Your task to perform on an android device: Open location settings Image 0: 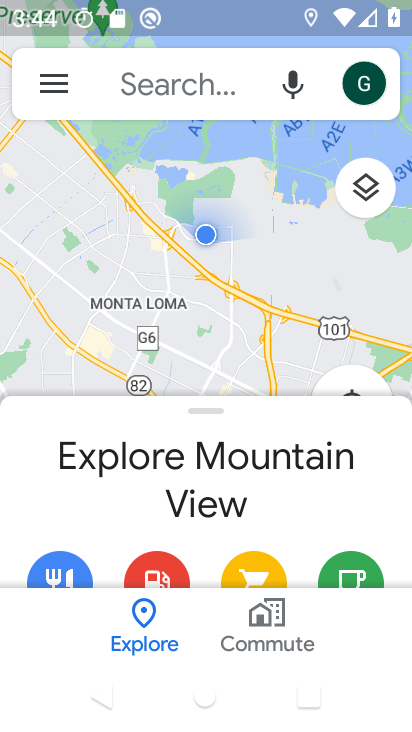
Step 0: press home button
Your task to perform on an android device: Open location settings Image 1: 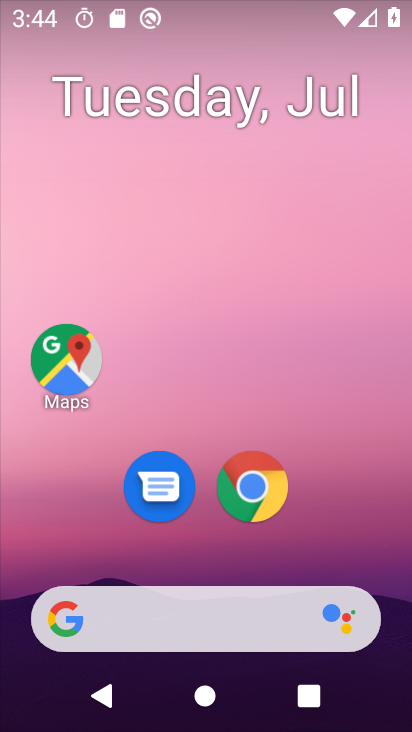
Step 1: drag from (362, 547) to (337, 43)
Your task to perform on an android device: Open location settings Image 2: 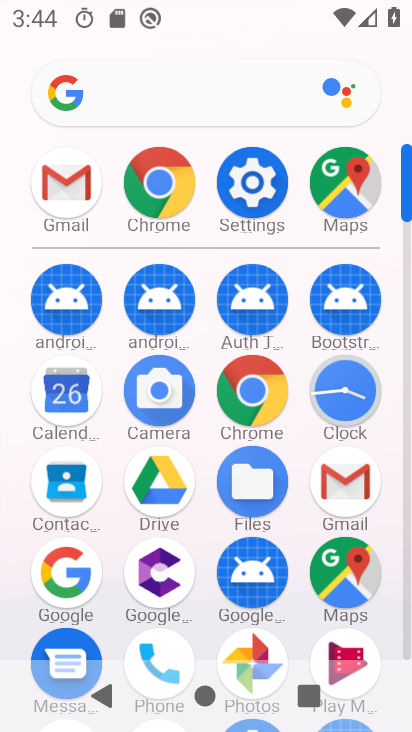
Step 2: click (254, 195)
Your task to perform on an android device: Open location settings Image 3: 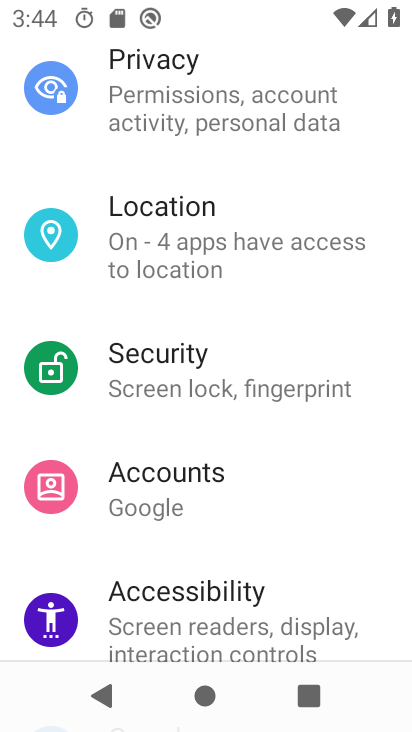
Step 3: drag from (351, 193) to (367, 290)
Your task to perform on an android device: Open location settings Image 4: 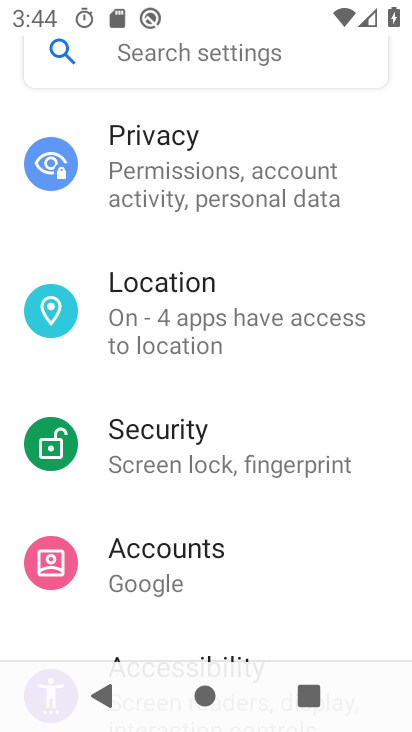
Step 4: drag from (377, 144) to (393, 279)
Your task to perform on an android device: Open location settings Image 5: 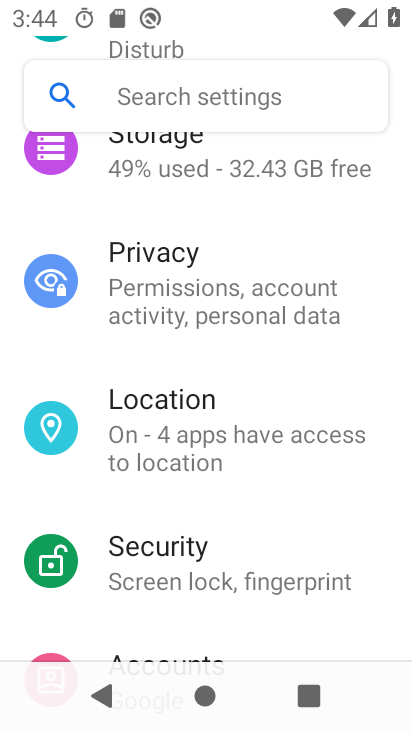
Step 5: click (247, 425)
Your task to perform on an android device: Open location settings Image 6: 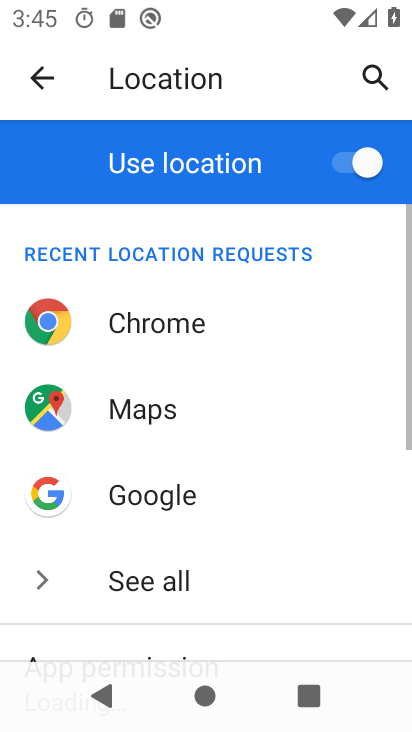
Step 6: drag from (308, 542) to (307, 353)
Your task to perform on an android device: Open location settings Image 7: 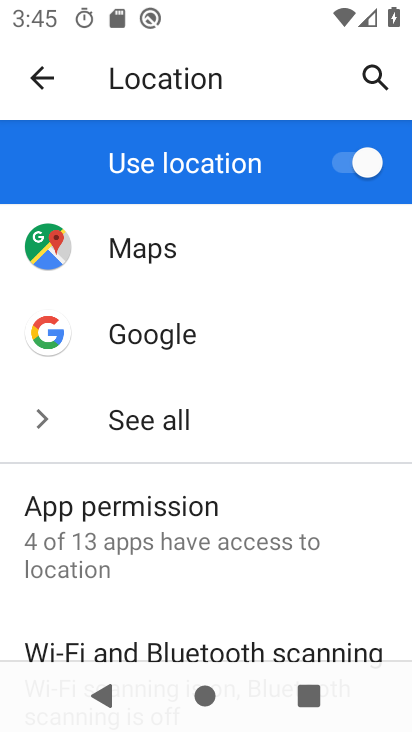
Step 7: drag from (308, 507) to (308, 406)
Your task to perform on an android device: Open location settings Image 8: 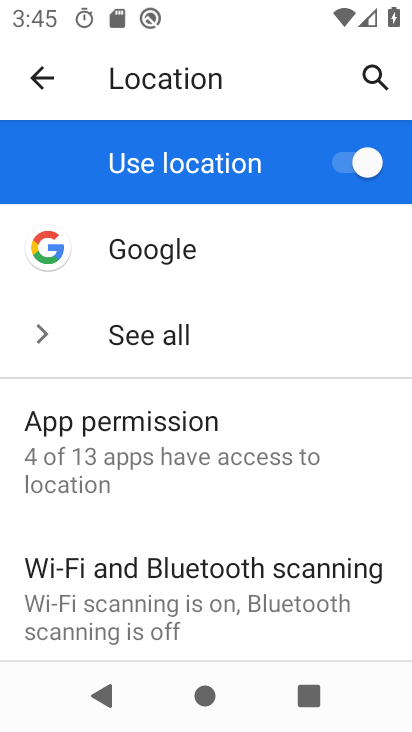
Step 8: drag from (319, 521) to (325, 375)
Your task to perform on an android device: Open location settings Image 9: 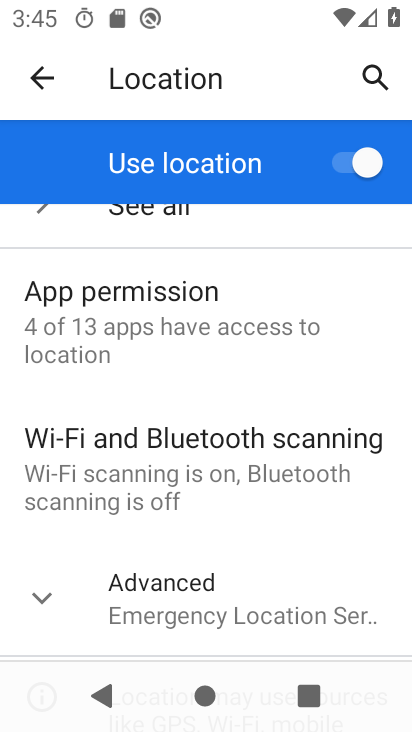
Step 9: drag from (326, 505) to (315, 398)
Your task to perform on an android device: Open location settings Image 10: 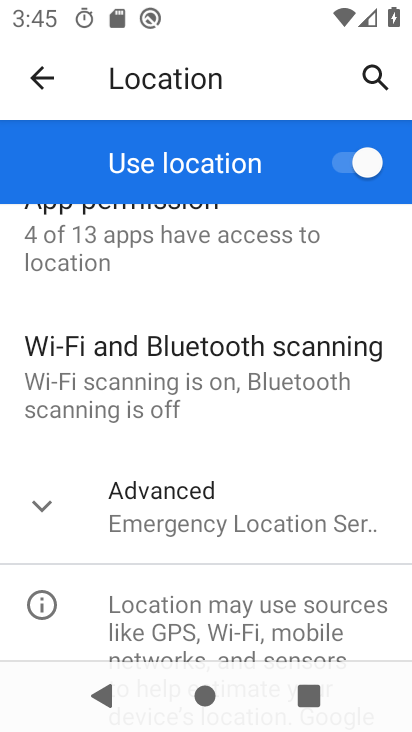
Step 10: click (288, 500)
Your task to perform on an android device: Open location settings Image 11: 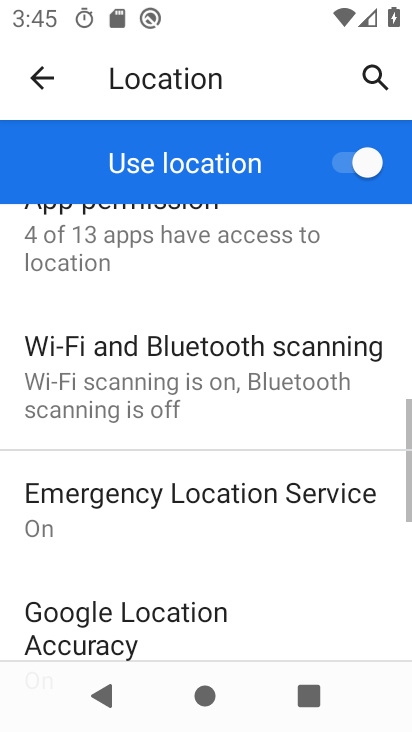
Step 11: task complete